Your task to perform on an android device: Is it going to rain this weekend? Image 0: 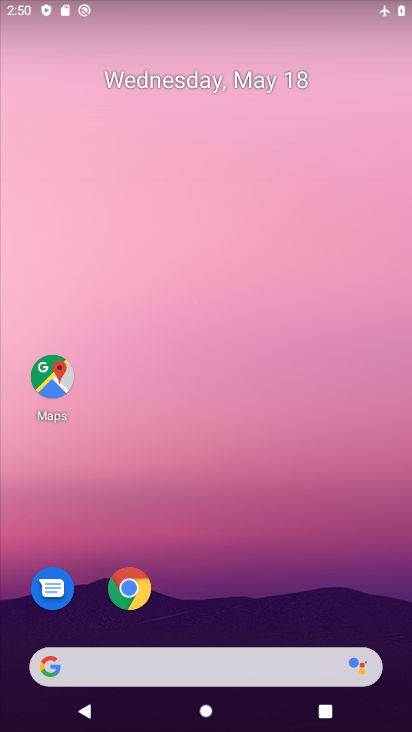
Step 0: drag from (240, 592) to (269, 130)
Your task to perform on an android device: Is it going to rain this weekend? Image 1: 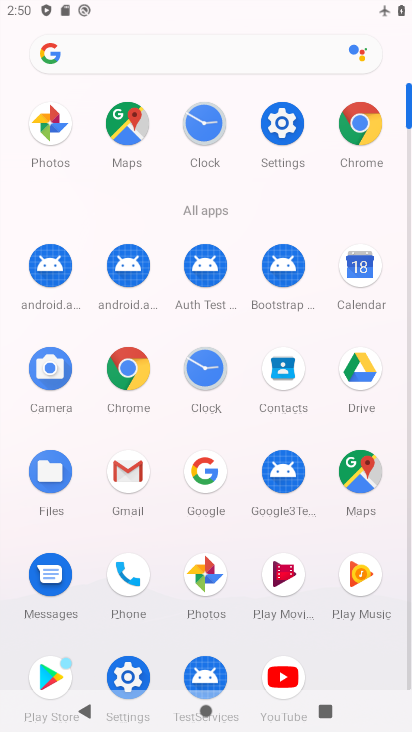
Step 1: click (103, 371)
Your task to perform on an android device: Is it going to rain this weekend? Image 2: 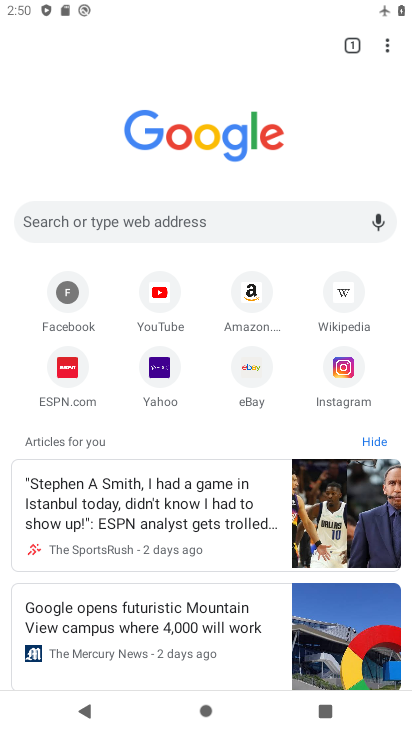
Step 2: click (101, 223)
Your task to perform on an android device: Is it going to rain this weekend? Image 3: 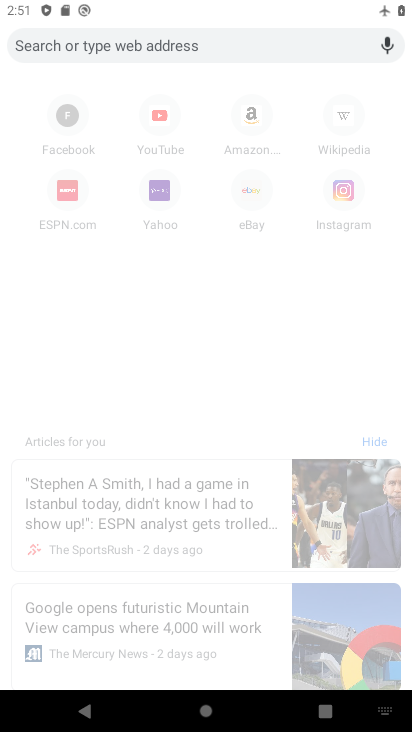
Step 3: type "is it going to rain this weekend"
Your task to perform on an android device: Is it going to rain this weekend? Image 4: 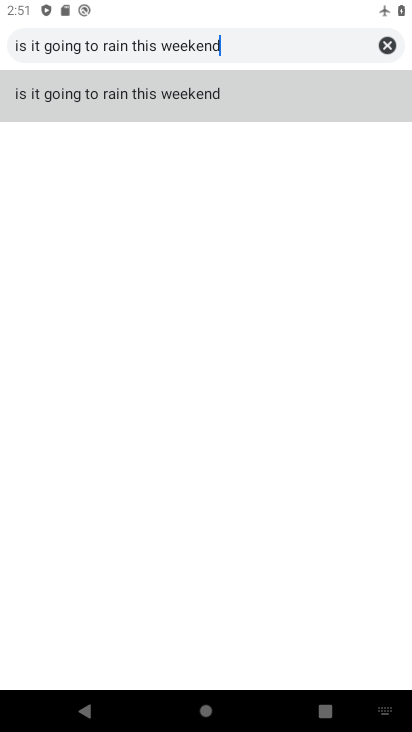
Step 4: click (91, 105)
Your task to perform on an android device: Is it going to rain this weekend? Image 5: 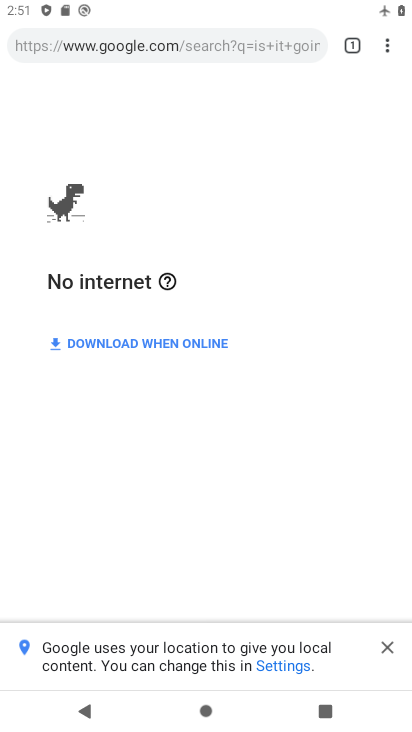
Step 5: task complete